Your task to perform on an android device: Open calendar and show me the fourth week of next month Image 0: 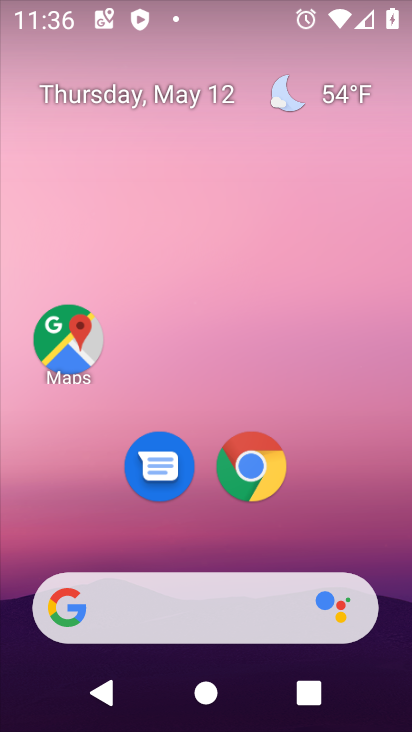
Step 0: drag from (389, 555) to (366, 153)
Your task to perform on an android device: Open calendar and show me the fourth week of next month Image 1: 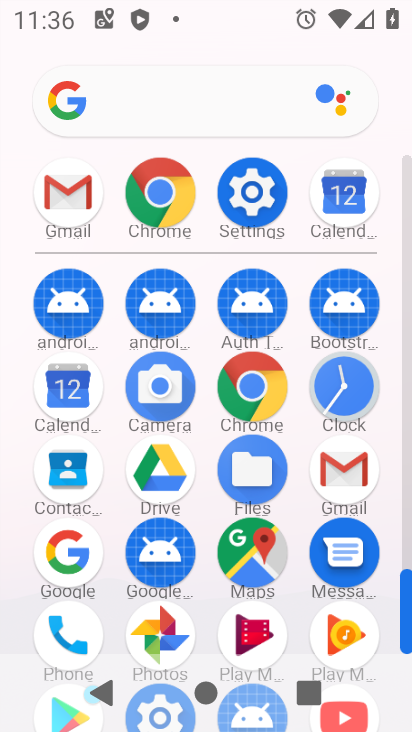
Step 1: click (74, 394)
Your task to perform on an android device: Open calendar and show me the fourth week of next month Image 2: 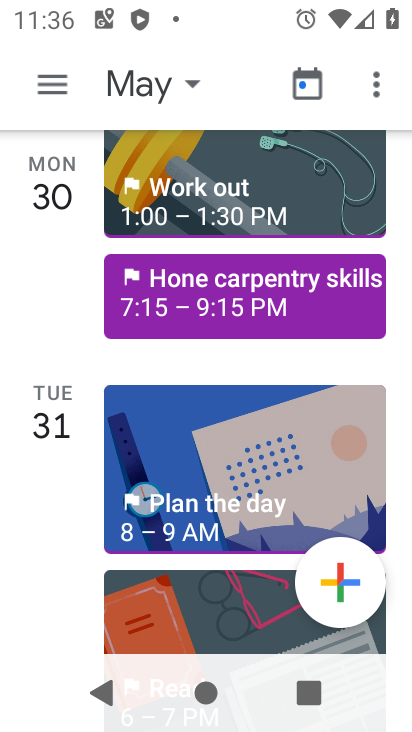
Step 2: click (168, 90)
Your task to perform on an android device: Open calendar and show me the fourth week of next month Image 3: 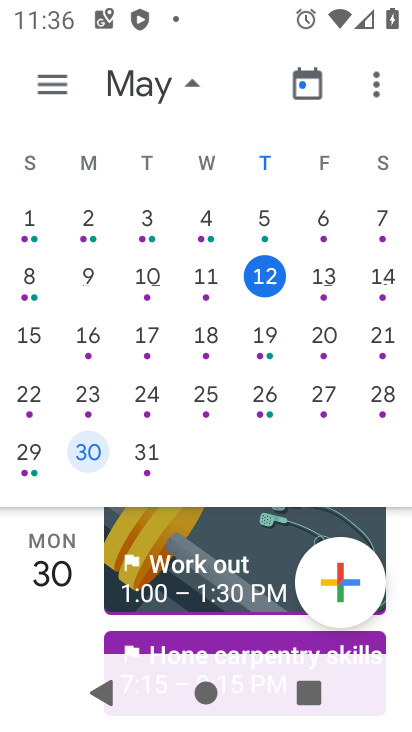
Step 3: drag from (369, 257) to (0, 326)
Your task to perform on an android device: Open calendar and show me the fourth week of next month Image 4: 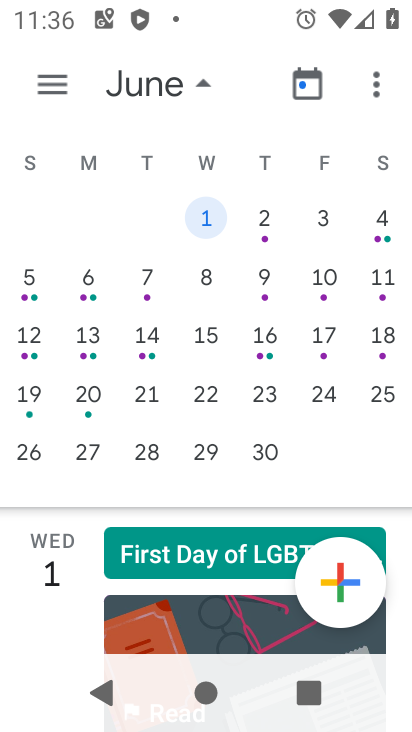
Step 4: click (30, 396)
Your task to perform on an android device: Open calendar and show me the fourth week of next month Image 5: 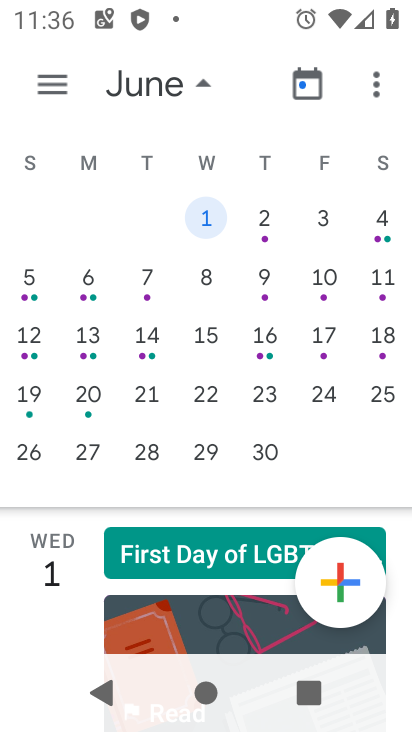
Step 5: click (37, 395)
Your task to perform on an android device: Open calendar and show me the fourth week of next month Image 6: 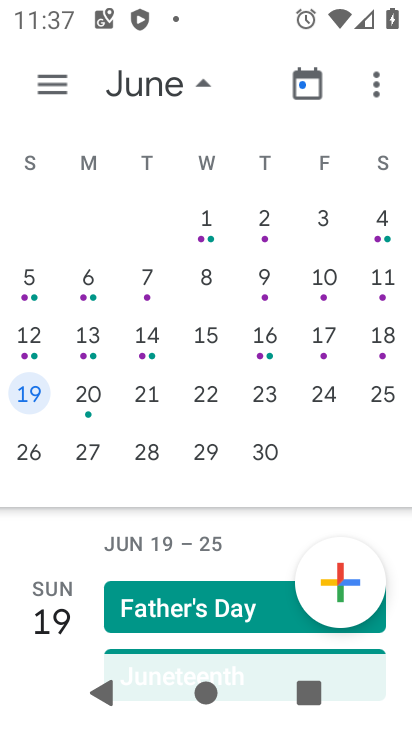
Step 6: task complete